Your task to perform on an android device: turn on showing notifications on the lock screen Image 0: 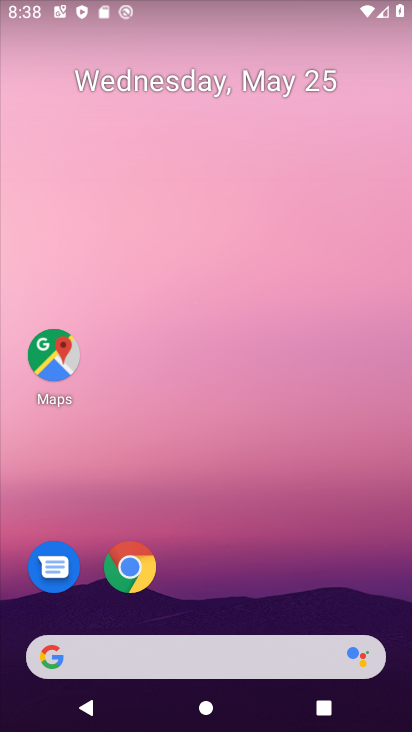
Step 0: drag from (277, 601) to (302, 199)
Your task to perform on an android device: turn on showing notifications on the lock screen Image 1: 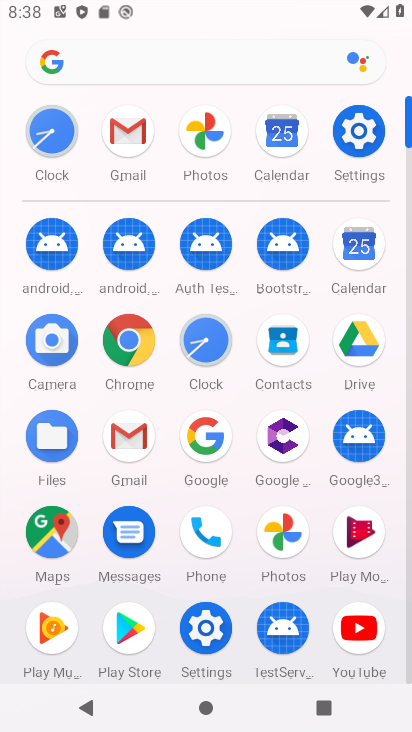
Step 1: click (374, 167)
Your task to perform on an android device: turn on showing notifications on the lock screen Image 2: 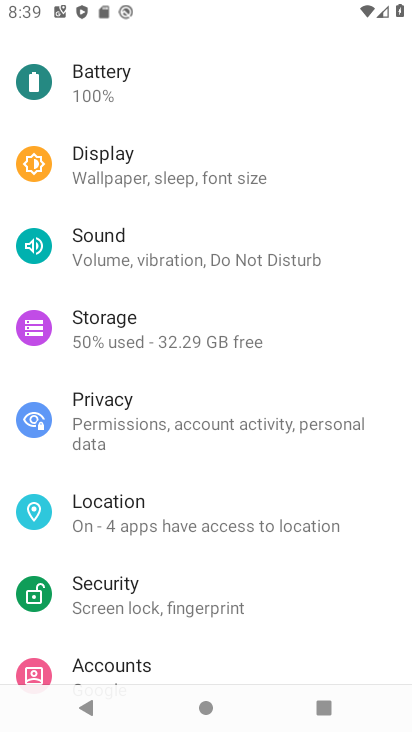
Step 2: drag from (203, 503) to (228, 338)
Your task to perform on an android device: turn on showing notifications on the lock screen Image 3: 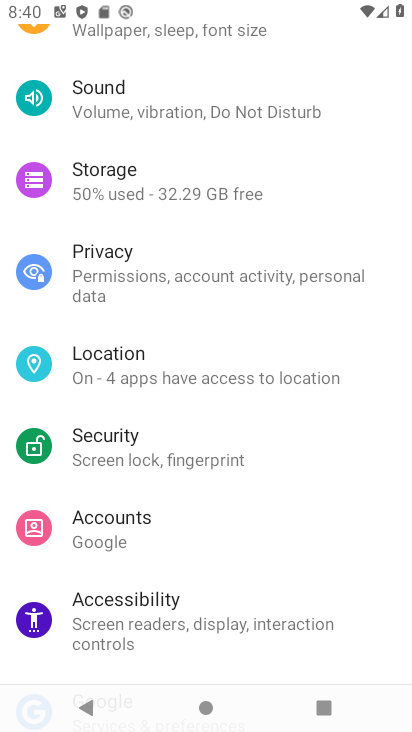
Step 3: drag from (185, 584) to (190, 445)
Your task to perform on an android device: turn on showing notifications on the lock screen Image 4: 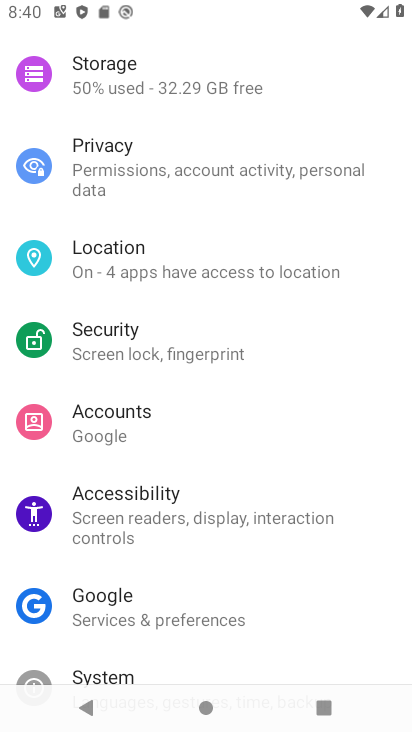
Step 4: click (268, 270)
Your task to perform on an android device: turn on showing notifications on the lock screen Image 5: 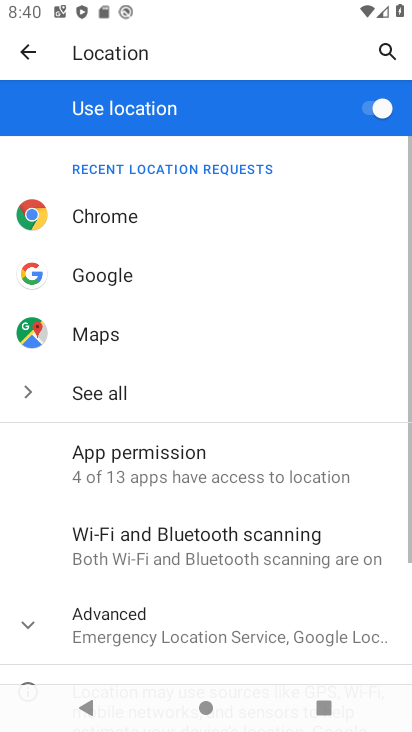
Step 5: task complete